Your task to perform on an android device: Empty the shopping cart on amazon. Search for logitech g903 on amazon, select the first entry, and add it to the cart. Image 0: 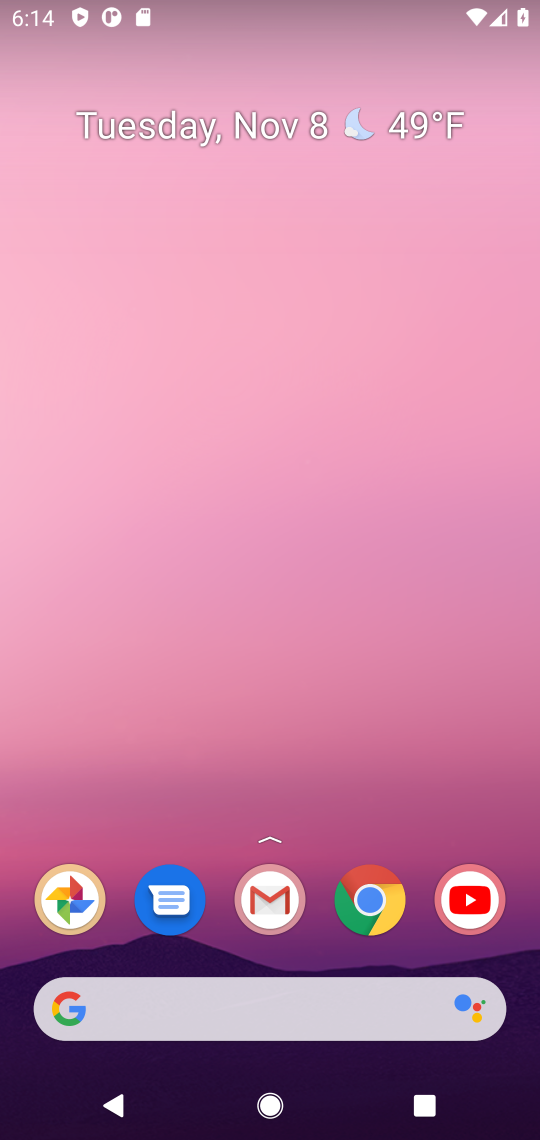
Step 0: drag from (204, 1028) to (338, 300)
Your task to perform on an android device: Empty the shopping cart on amazon. Search for logitech g903 on amazon, select the first entry, and add it to the cart. Image 1: 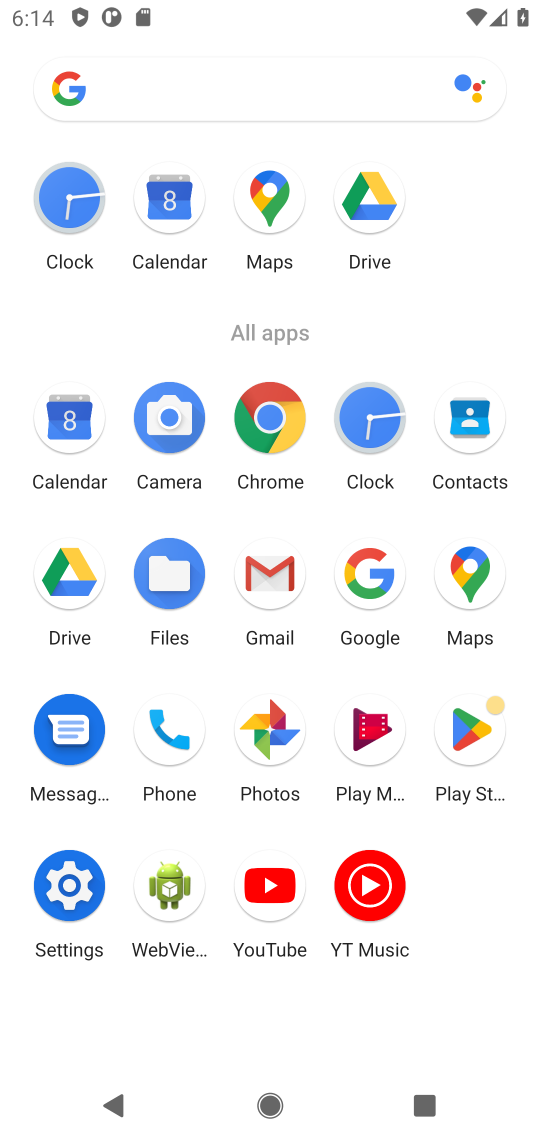
Step 1: click (368, 571)
Your task to perform on an android device: Empty the shopping cart on amazon. Search for logitech g903 on amazon, select the first entry, and add it to the cart. Image 2: 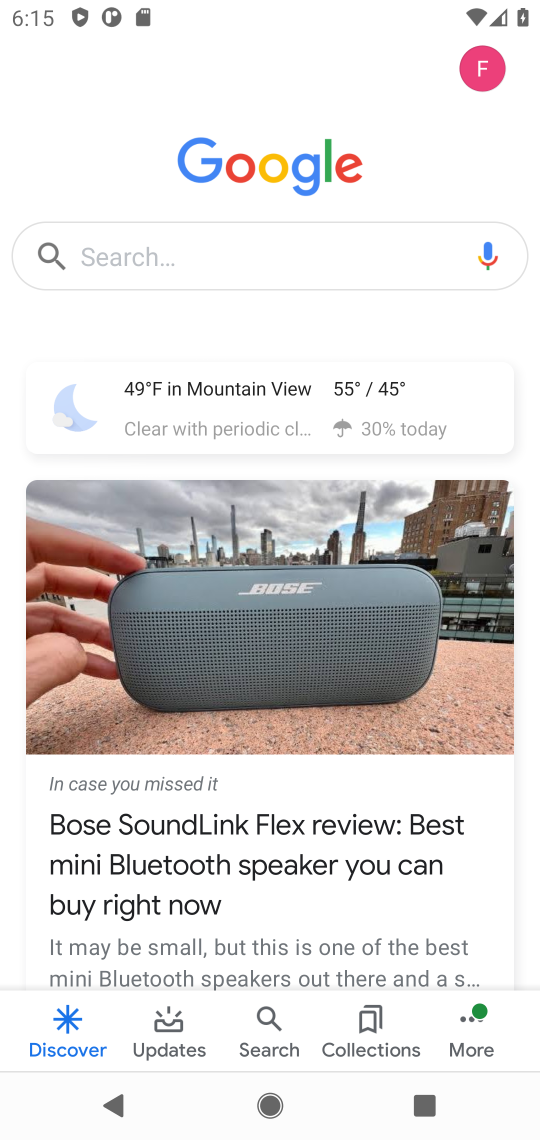
Step 2: click (289, 228)
Your task to perform on an android device: Empty the shopping cart on amazon. Search for logitech g903 on amazon, select the first entry, and add it to the cart. Image 3: 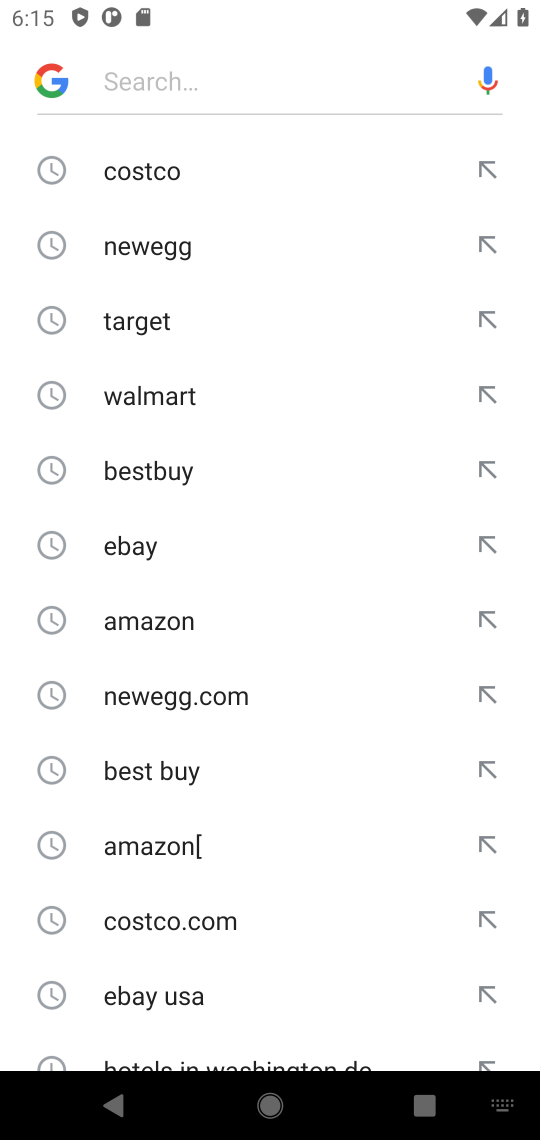
Step 3: type "amazon "
Your task to perform on an android device: Empty the shopping cart on amazon. Search for logitech g903 on amazon, select the first entry, and add it to the cart. Image 4: 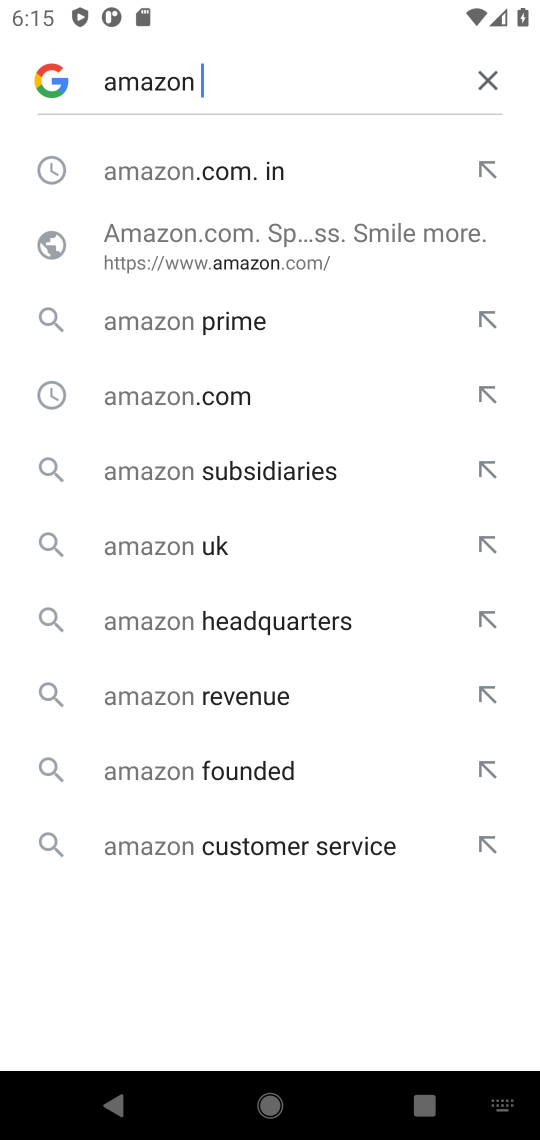
Step 4: click (159, 173)
Your task to perform on an android device: Empty the shopping cart on amazon. Search for logitech g903 on amazon, select the first entry, and add it to the cart. Image 5: 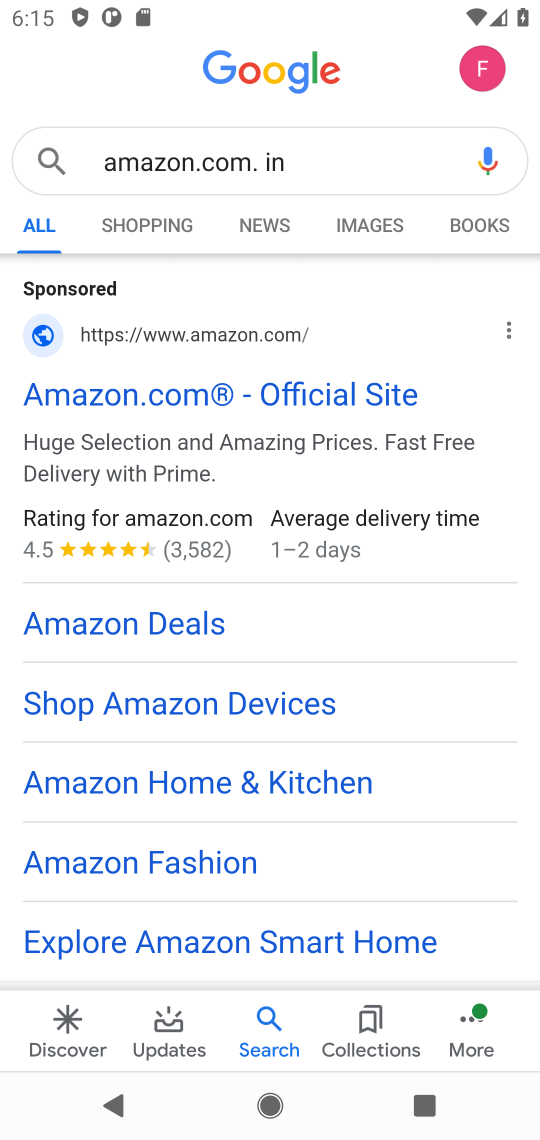
Step 5: click (143, 380)
Your task to perform on an android device: Empty the shopping cart on amazon. Search for logitech g903 on amazon, select the first entry, and add it to the cart. Image 6: 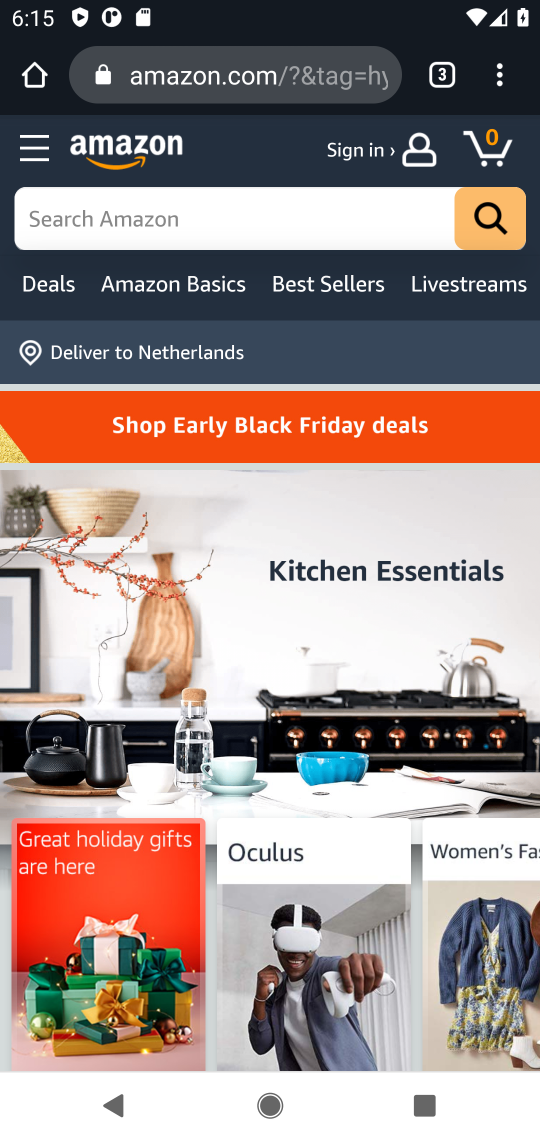
Step 6: click (239, 213)
Your task to perform on an android device: Empty the shopping cart on amazon. Search for logitech g903 on amazon, select the first entry, and add it to the cart. Image 7: 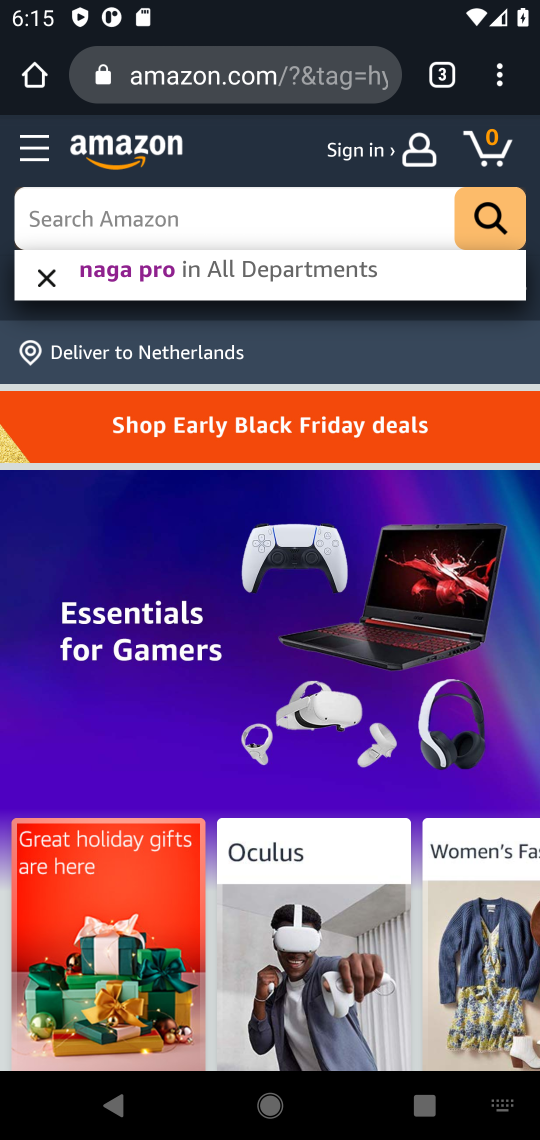
Step 7: type " logitech g903 "
Your task to perform on an android device: Empty the shopping cart on amazon. Search for logitech g903 on amazon, select the first entry, and add it to the cart. Image 8: 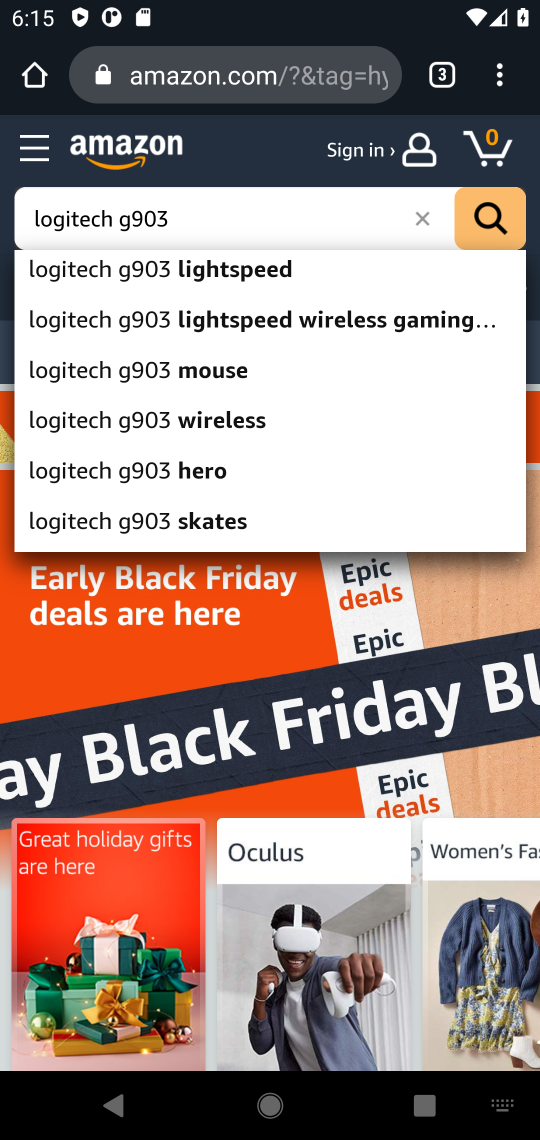
Step 8: click (219, 274)
Your task to perform on an android device: Empty the shopping cart on amazon. Search for logitech g903 on amazon, select the first entry, and add it to the cart. Image 9: 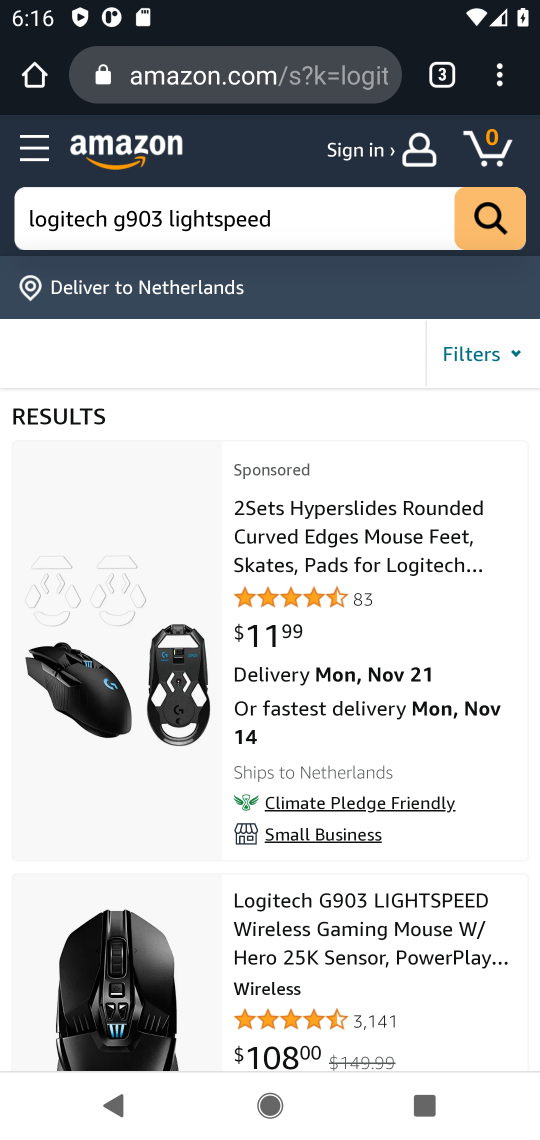
Step 9: drag from (377, 993) to (380, 632)
Your task to perform on an android device: Empty the shopping cart on amazon. Search for logitech g903 on amazon, select the first entry, and add it to the cart. Image 10: 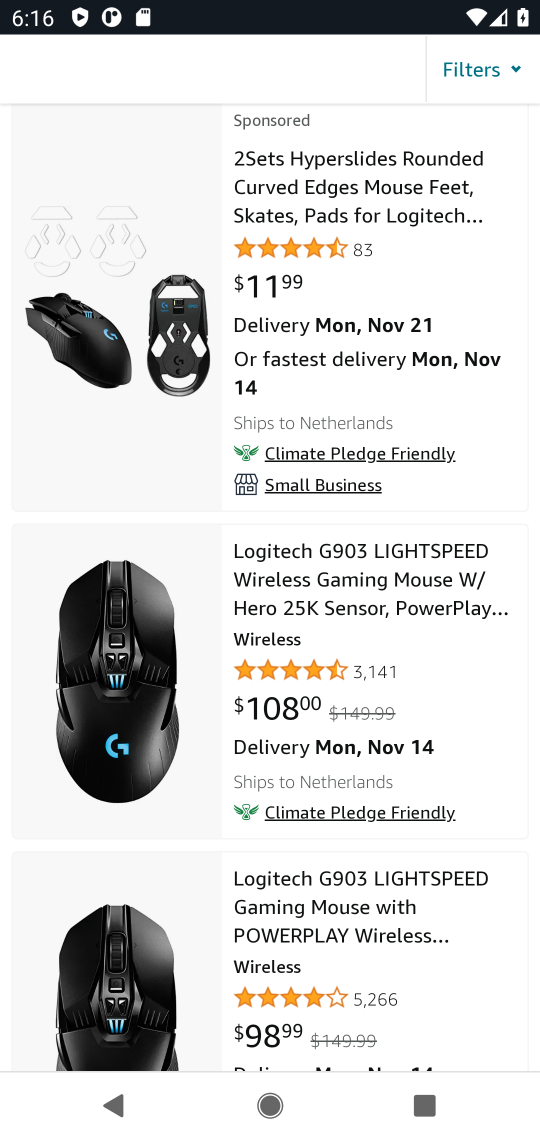
Step 10: click (332, 575)
Your task to perform on an android device: Empty the shopping cart on amazon. Search for logitech g903 on amazon, select the first entry, and add it to the cart. Image 11: 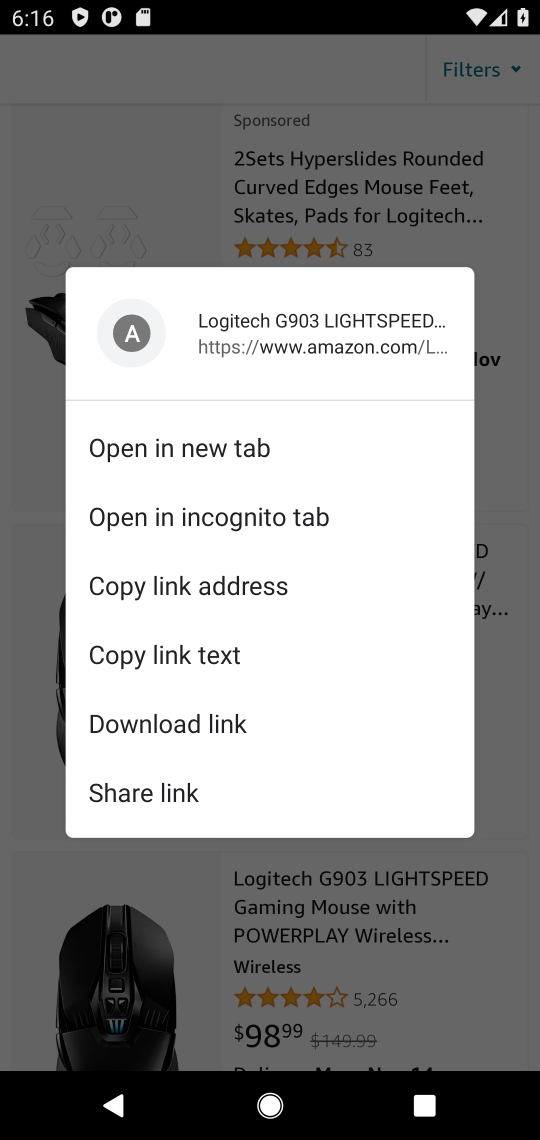
Step 11: click (435, 991)
Your task to perform on an android device: Empty the shopping cart on amazon. Search for logitech g903 on amazon, select the first entry, and add it to the cart. Image 12: 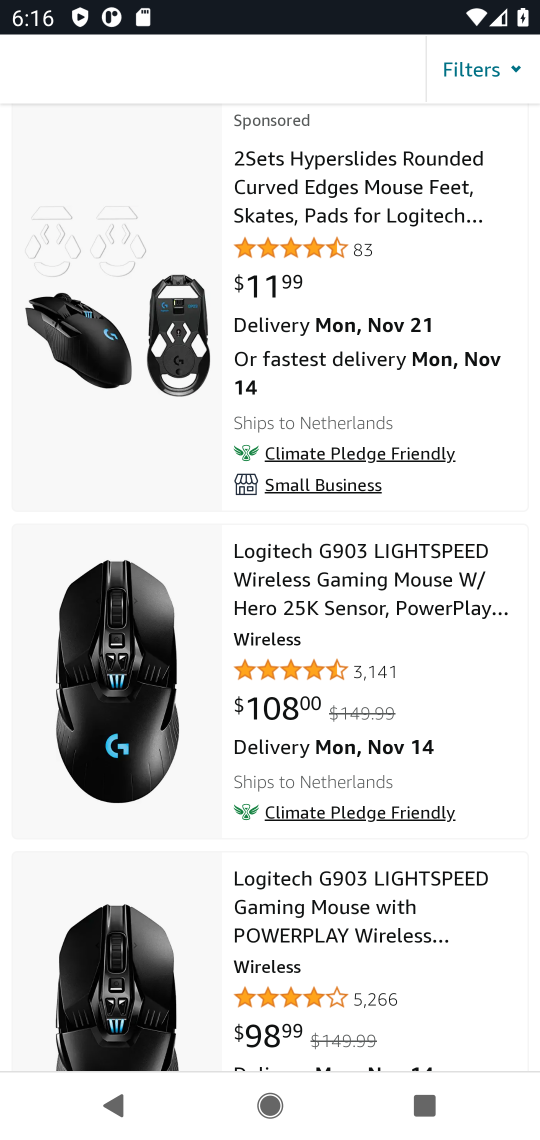
Step 12: click (403, 551)
Your task to perform on an android device: Empty the shopping cart on amazon. Search for logitech g903 on amazon, select the first entry, and add it to the cart. Image 13: 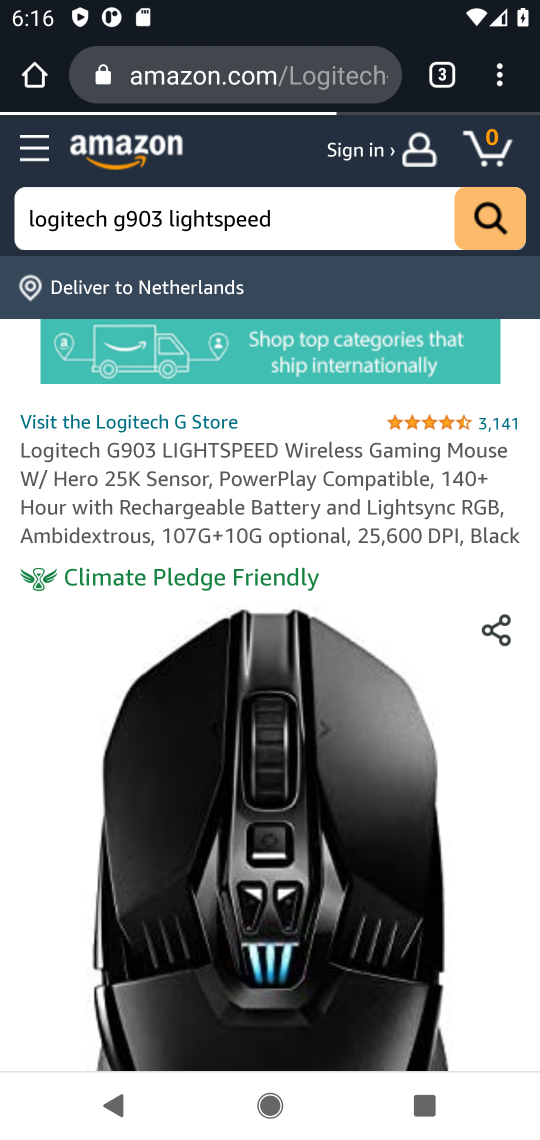
Step 13: drag from (432, 1017) to (505, 227)
Your task to perform on an android device: Empty the shopping cart on amazon. Search for logitech g903 on amazon, select the first entry, and add it to the cart. Image 14: 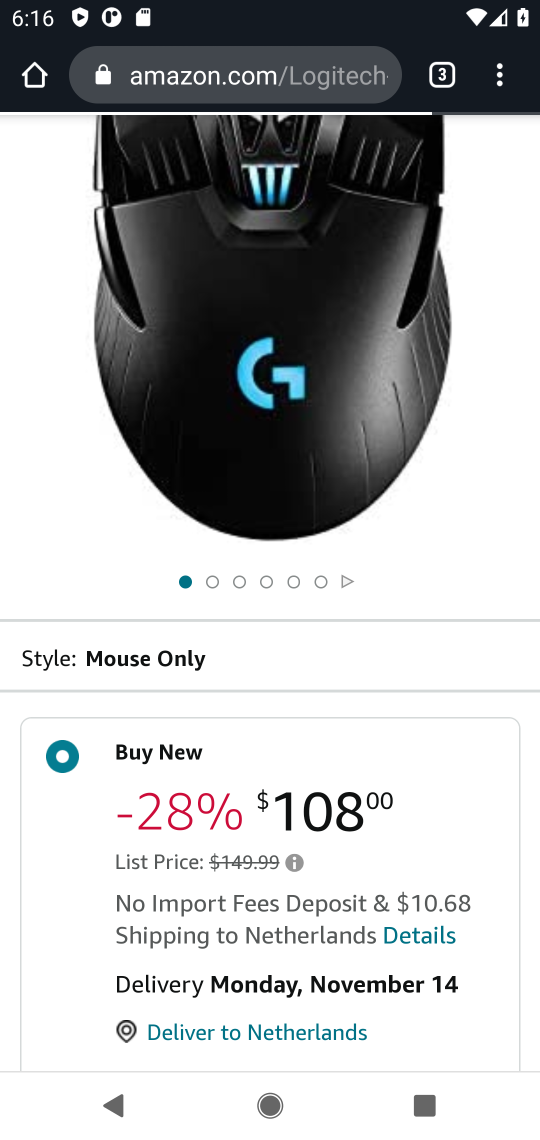
Step 14: drag from (188, 870) to (285, 95)
Your task to perform on an android device: Empty the shopping cart on amazon. Search for logitech g903 on amazon, select the first entry, and add it to the cart. Image 15: 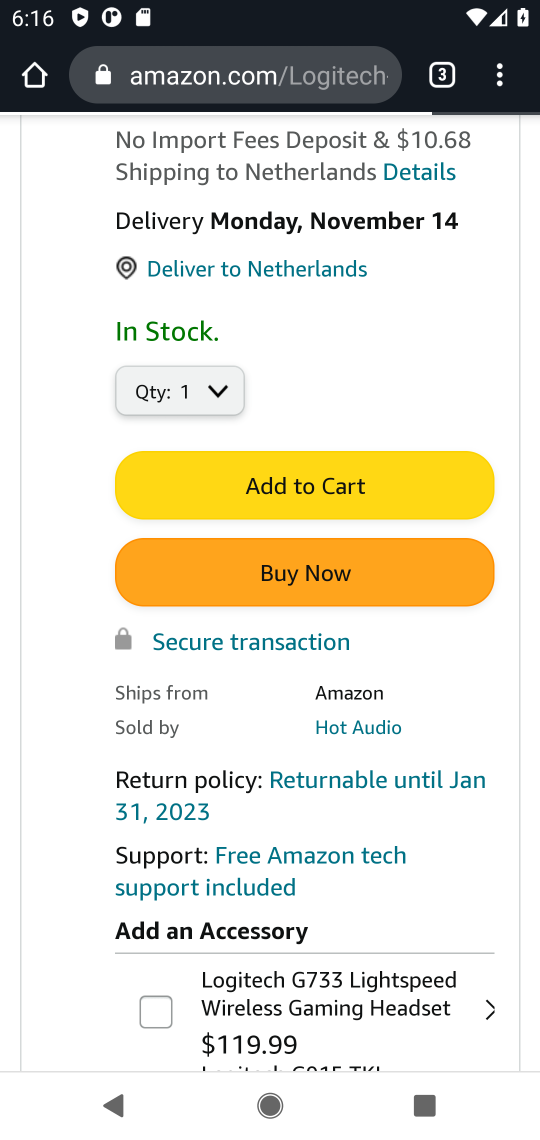
Step 15: click (381, 463)
Your task to perform on an android device: Empty the shopping cart on amazon. Search for logitech g903 on amazon, select the first entry, and add it to the cart. Image 16: 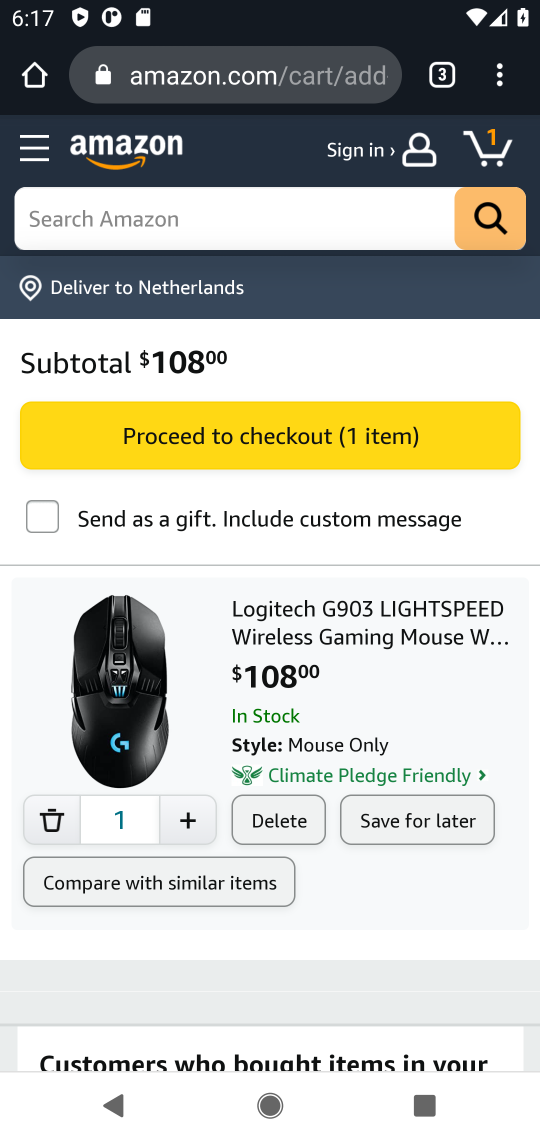
Step 16: task complete